Your task to perform on an android device: change timer sound Image 0: 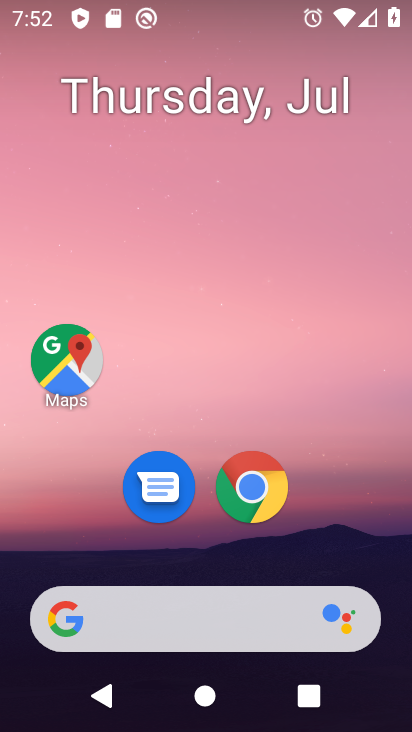
Step 0: drag from (197, 541) to (209, 157)
Your task to perform on an android device: change timer sound Image 1: 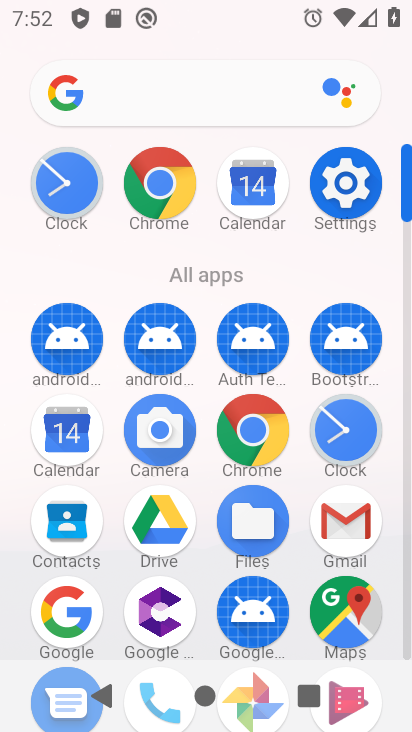
Step 1: click (331, 431)
Your task to perform on an android device: change timer sound Image 2: 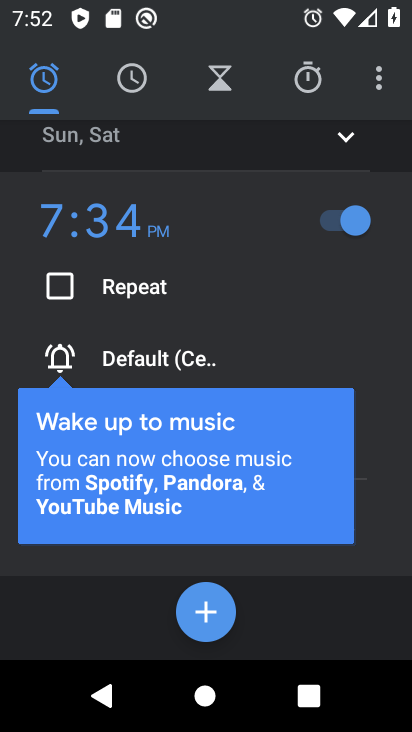
Step 2: click (217, 83)
Your task to perform on an android device: change timer sound Image 3: 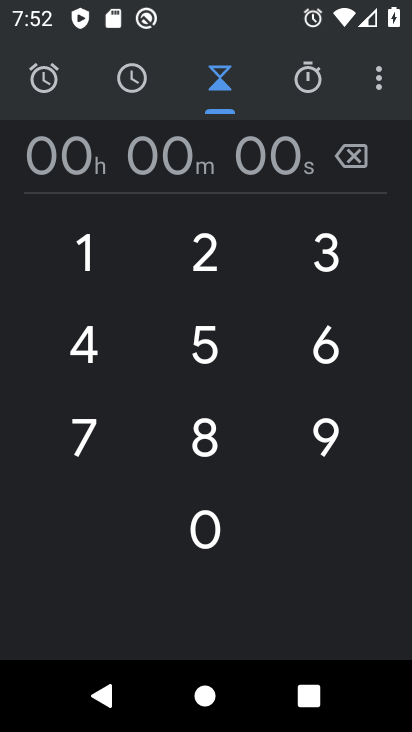
Step 3: click (210, 256)
Your task to perform on an android device: change timer sound Image 4: 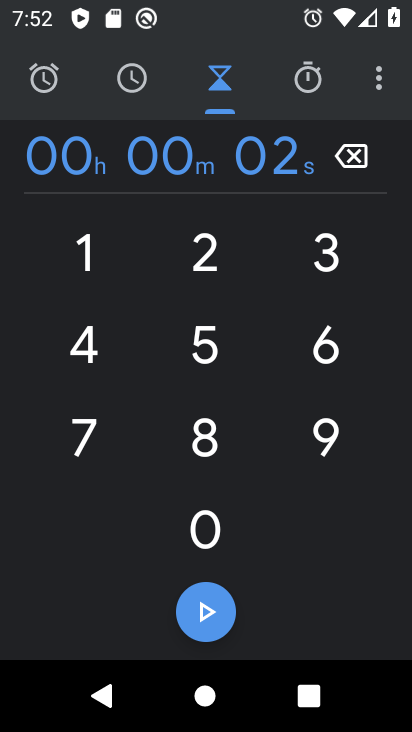
Step 4: click (190, 634)
Your task to perform on an android device: change timer sound Image 5: 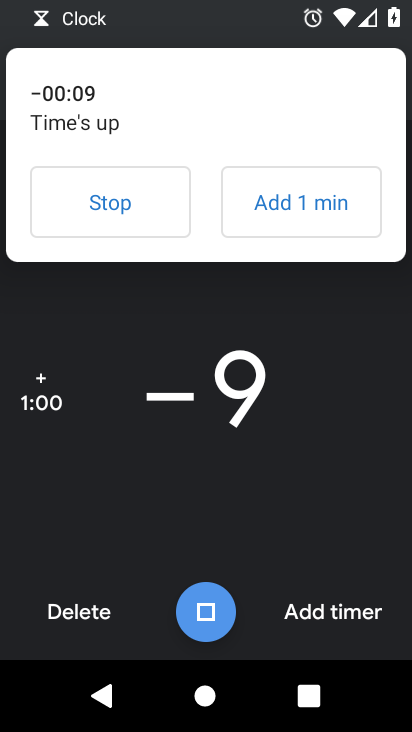
Step 5: task complete